Your task to perform on an android device: When is my next appointment? Image 0: 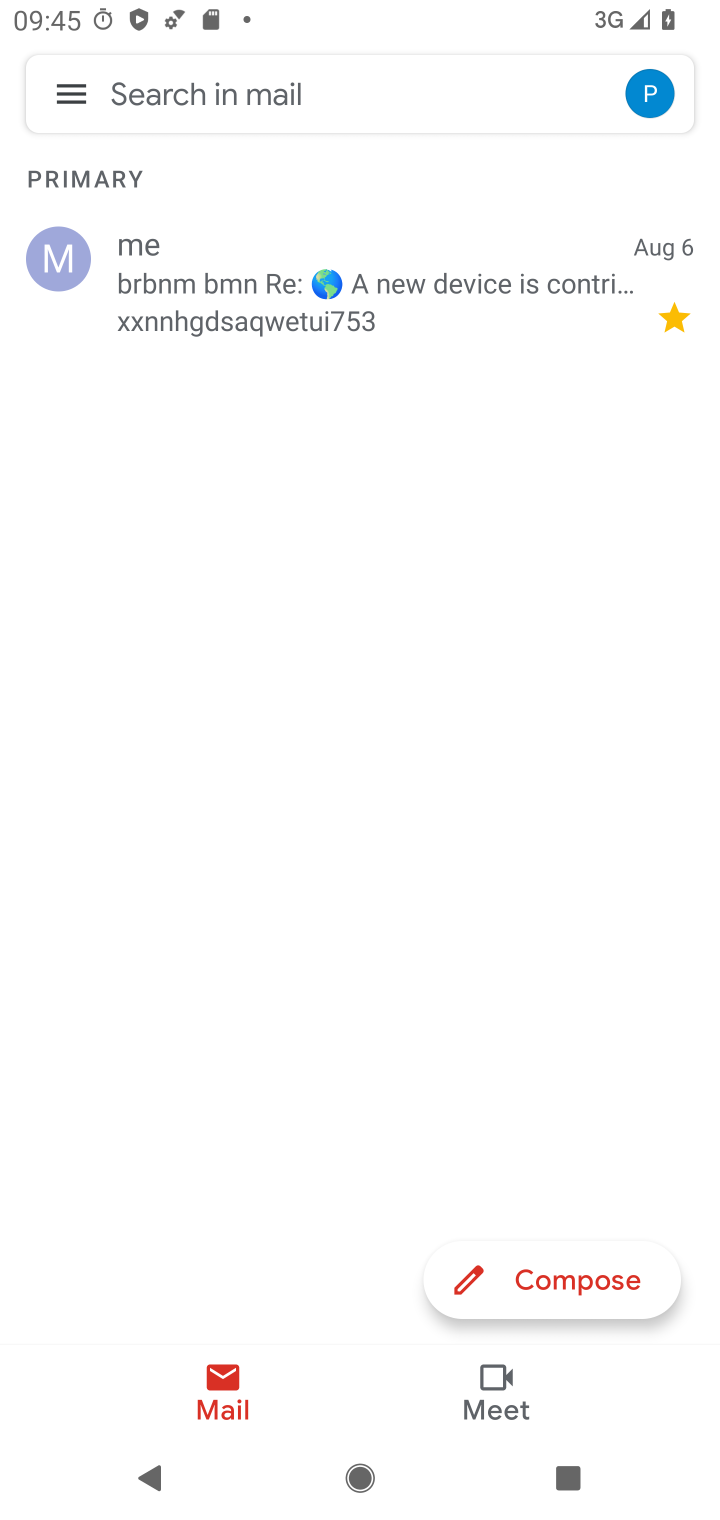
Step 0: press home button
Your task to perform on an android device: When is my next appointment? Image 1: 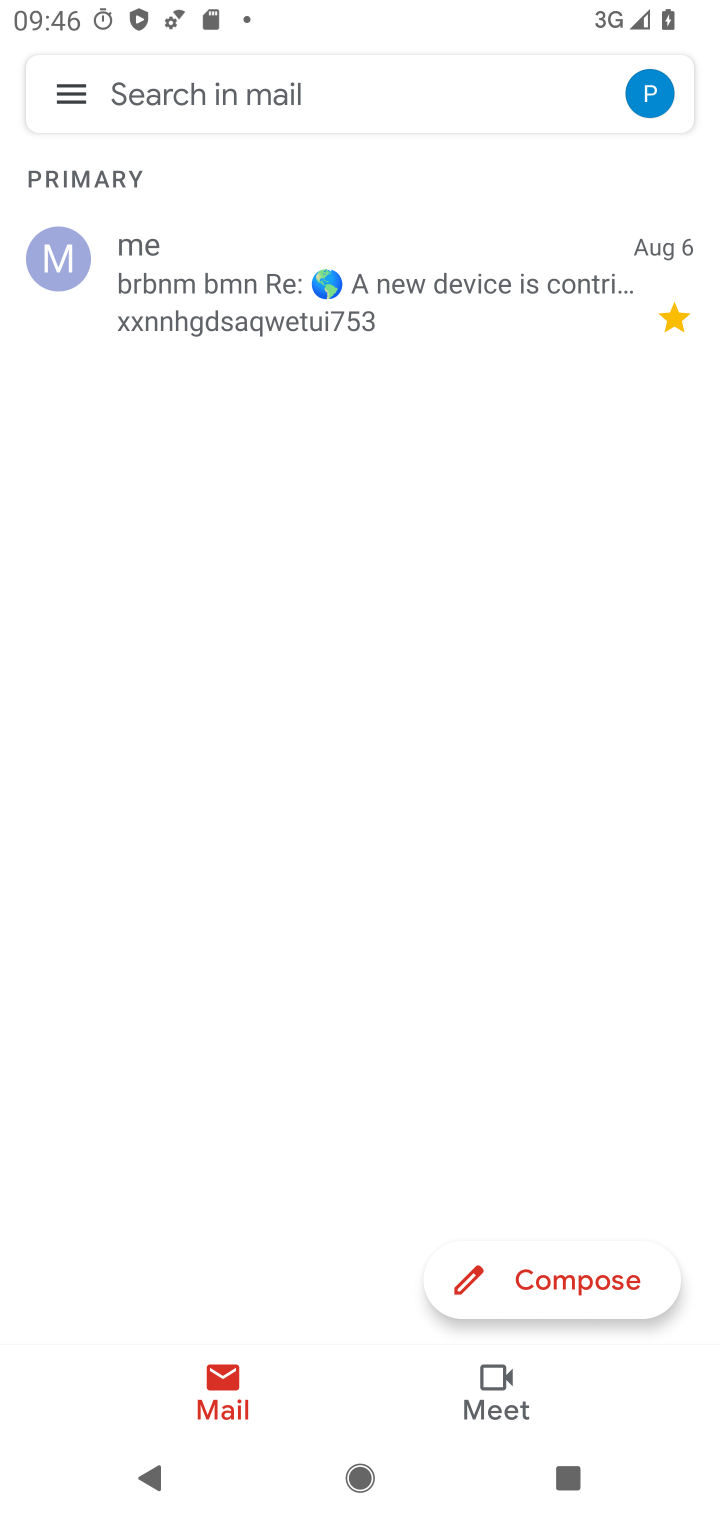
Step 1: press home button
Your task to perform on an android device: When is my next appointment? Image 2: 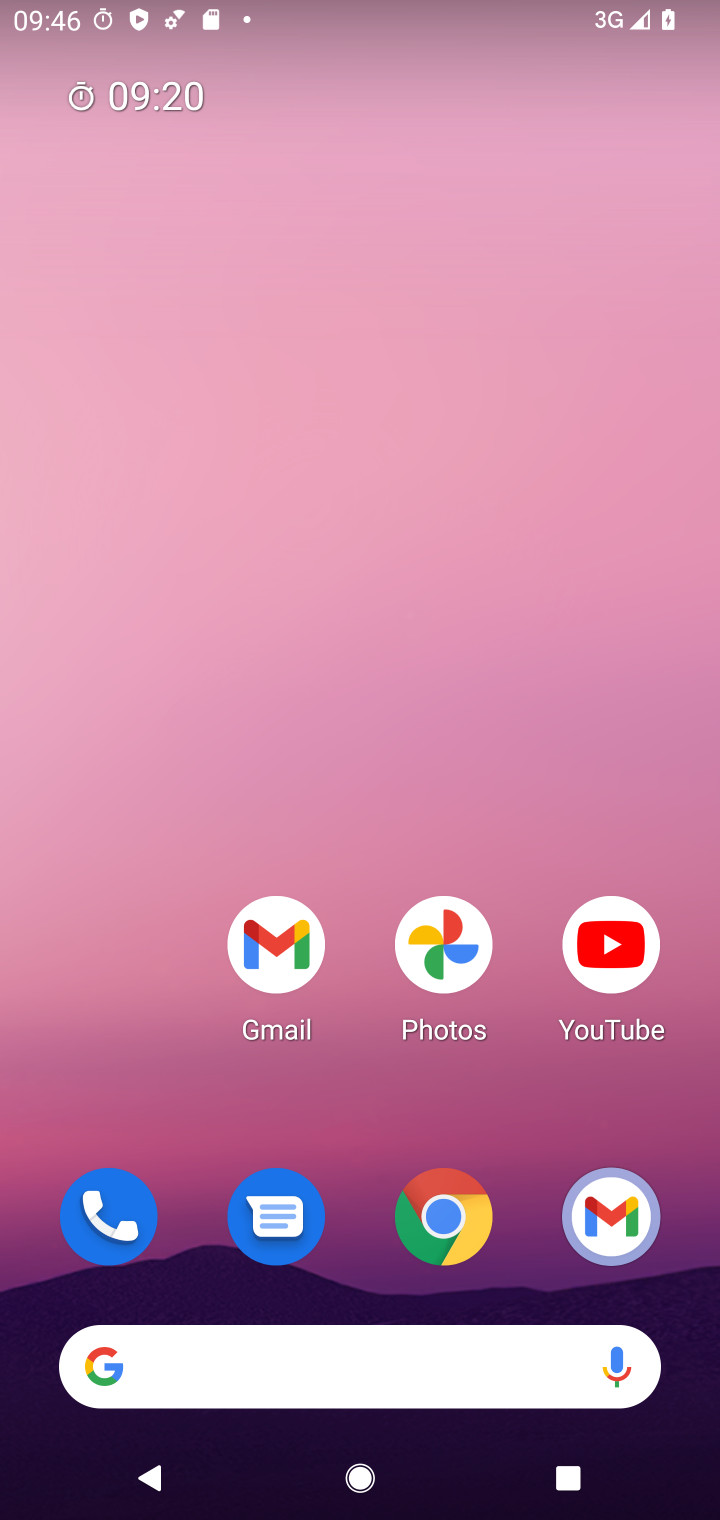
Step 2: drag from (366, 1281) to (322, 562)
Your task to perform on an android device: When is my next appointment? Image 3: 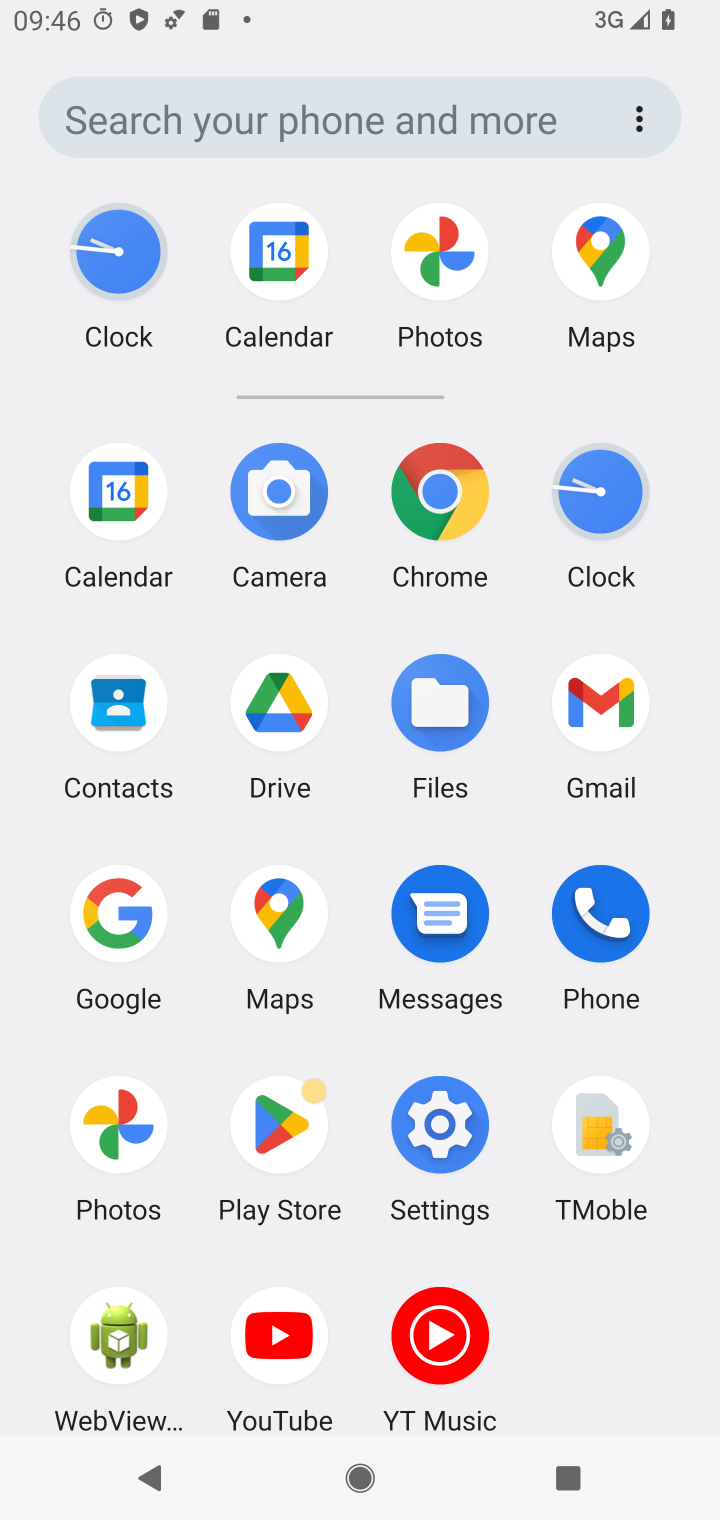
Step 3: click (116, 488)
Your task to perform on an android device: When is my next appointment? Image 4: 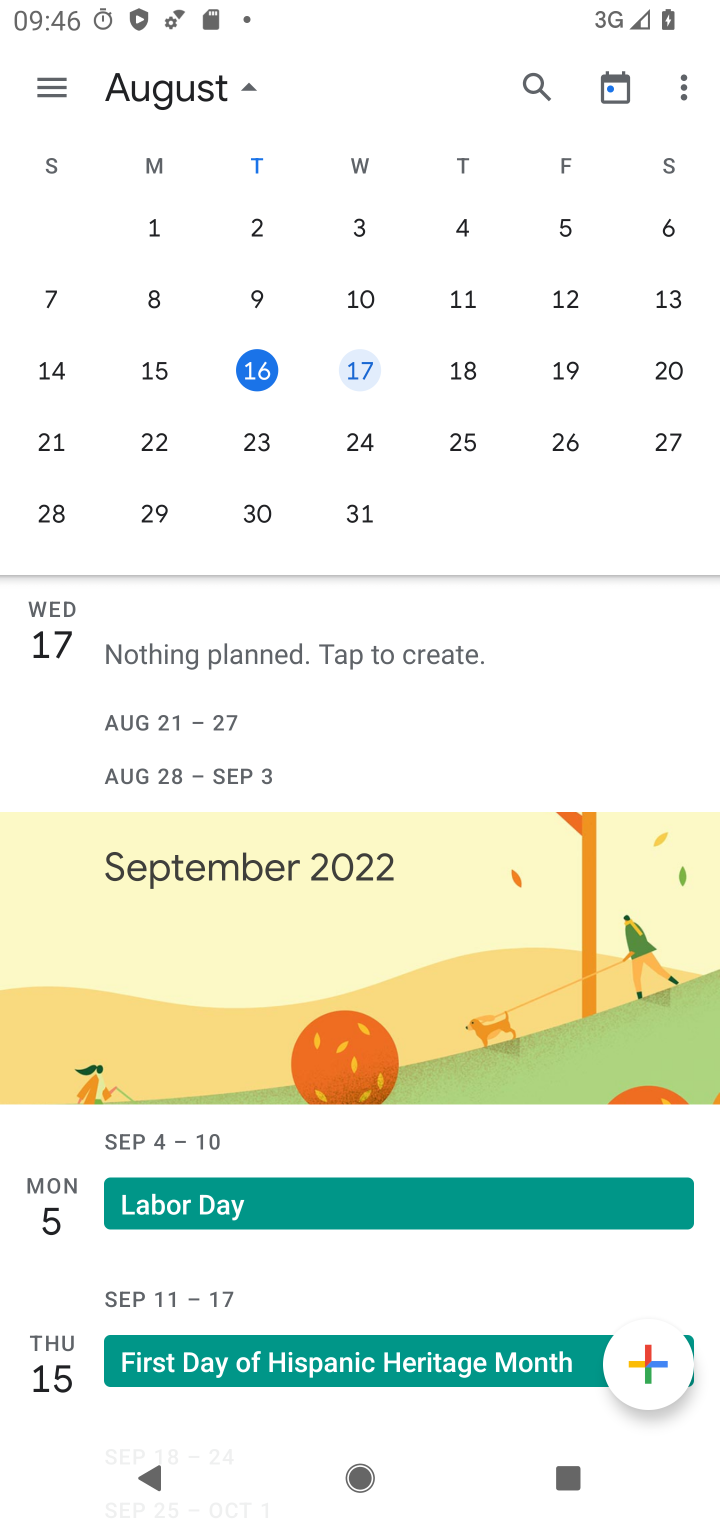
Step 4: click (330, 361)
Your task to perform on an android device: When is my next appointment? Image 5: 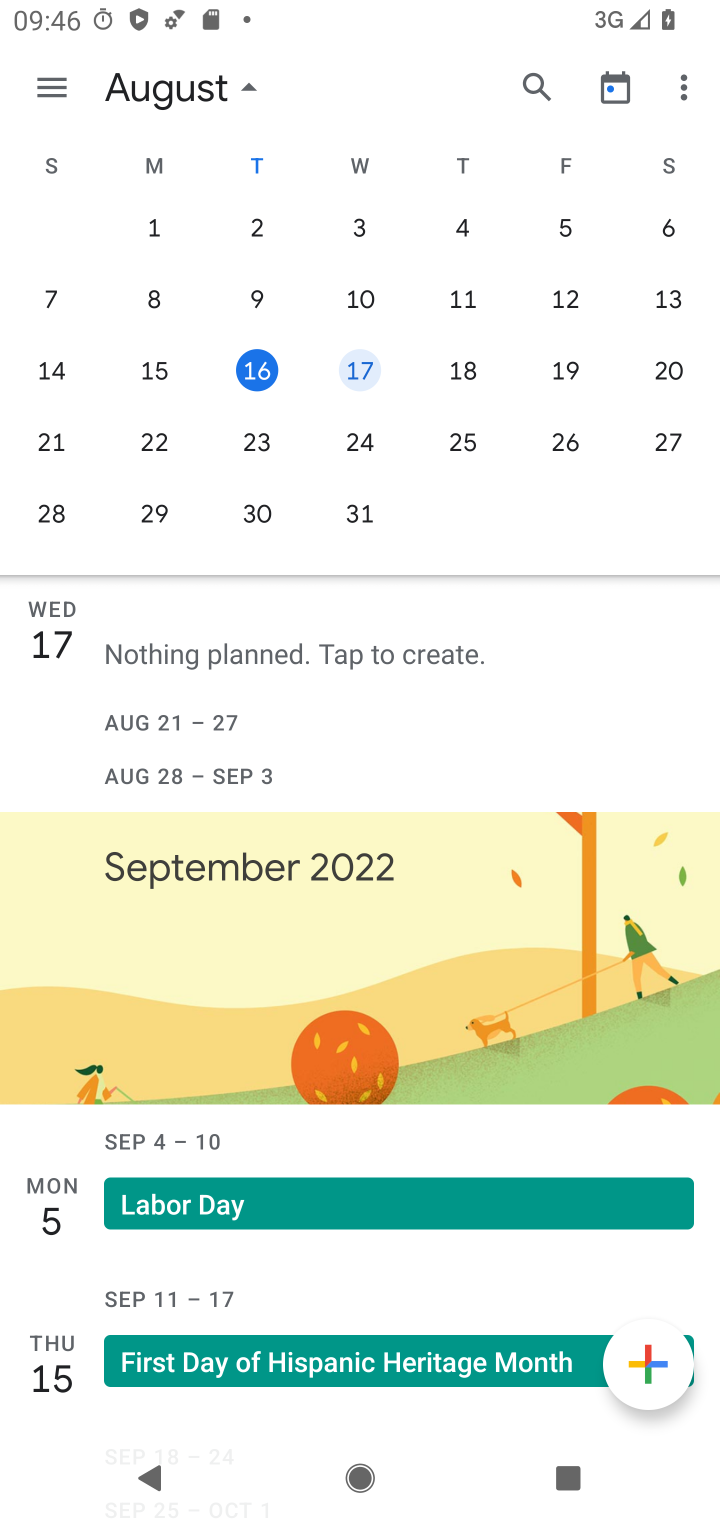
Step 5: click (350, 356)
Your task to perform on an android device: When is my next appointment? Image 6: 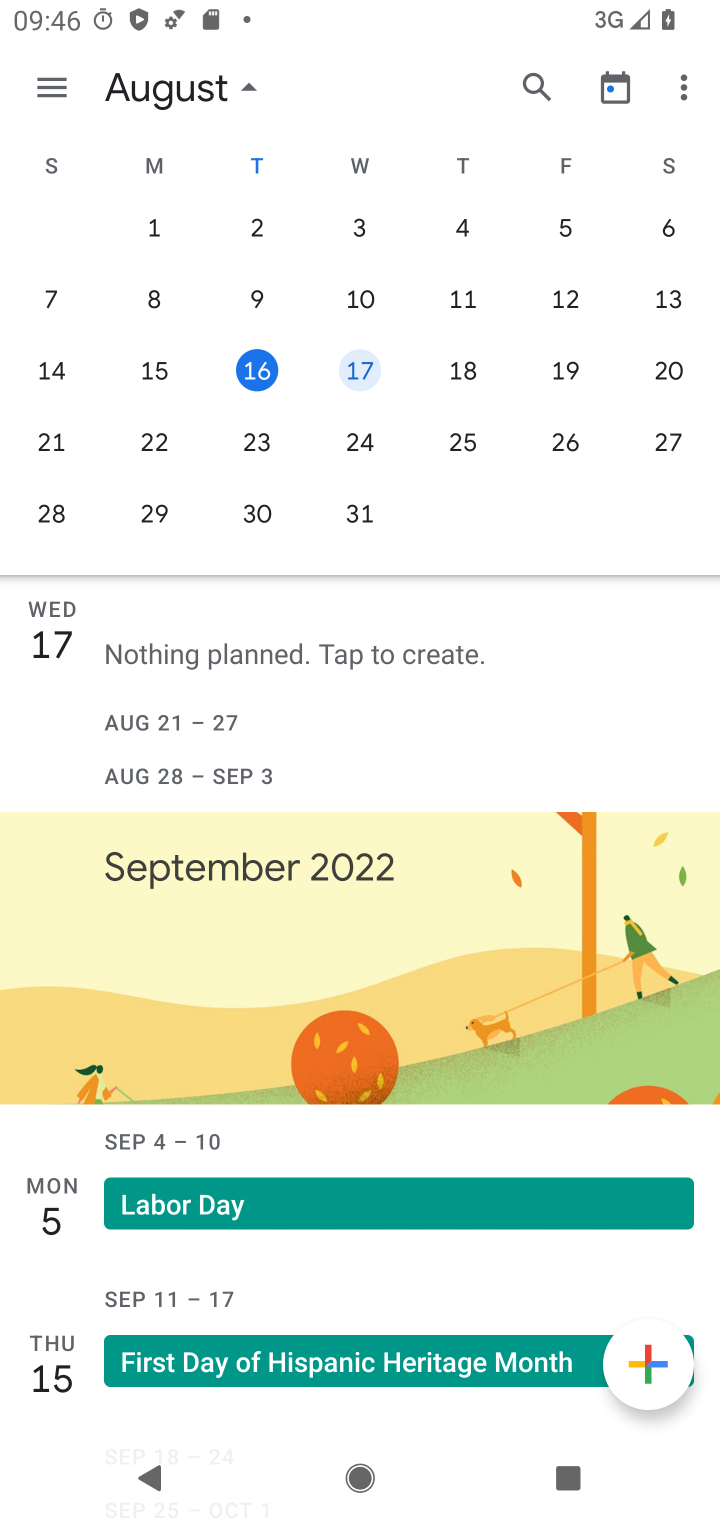
Step 6: task complete